Your task to perform on an android device: open chrome privacy settings Image 0: 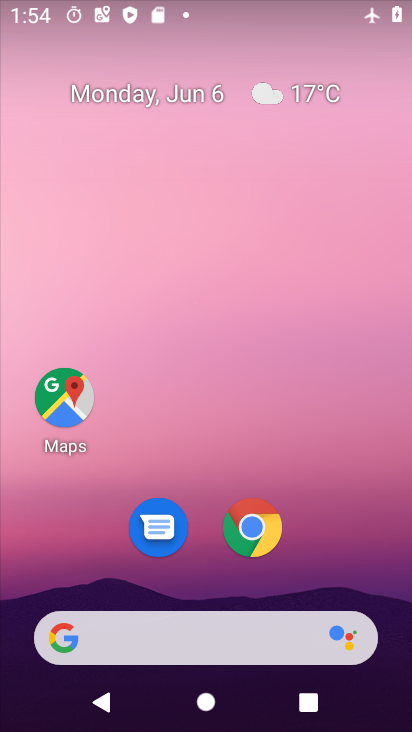
Step 0: click (258, 532)
Your task to perform on an android device: open chrome privacy settings Image 1: 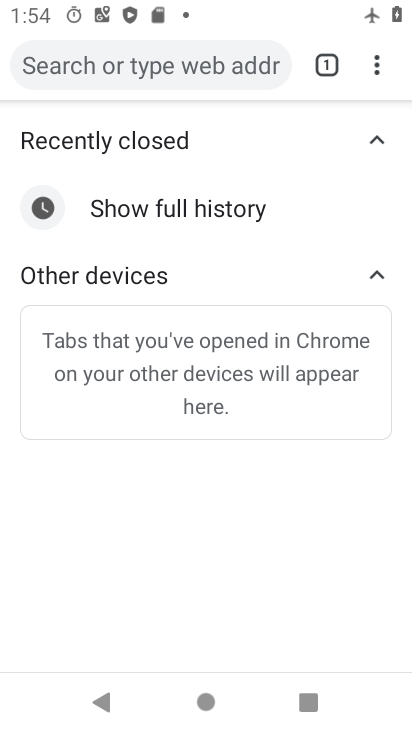
Step 1: click (377, 72)
Your task to perform on an android device: open chrome privacy settings Image 2: 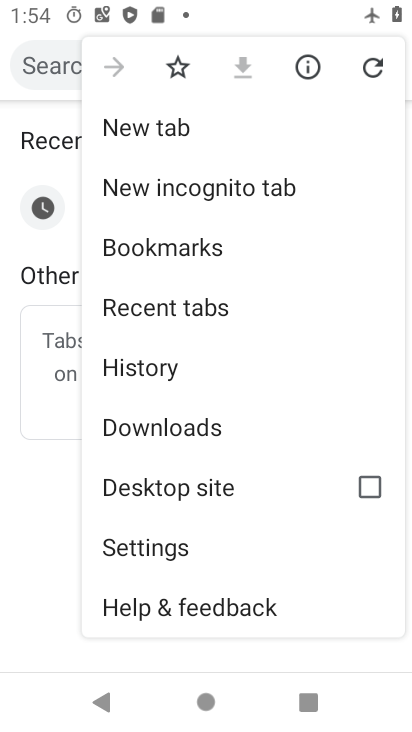
Step 2: click (153, 544)
Your task to perform on an android device: open chrome privacy settings Image 3: 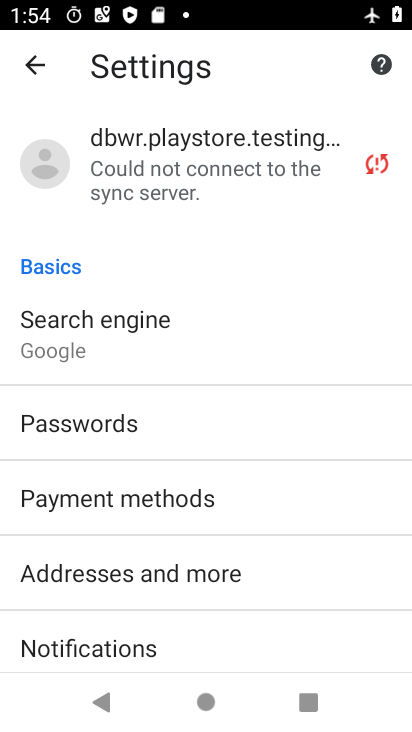
Step 3: drag from (146, 645) to (146, 342)
Your task to perform on an android device: open chrome privacy settings Image 4: 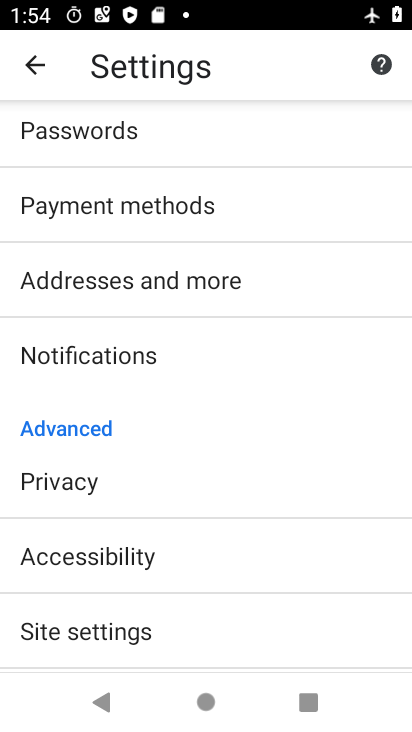
Step 4: click (77, 478)
Your task to perform on an android device: open chrome privacy settings Image 5: 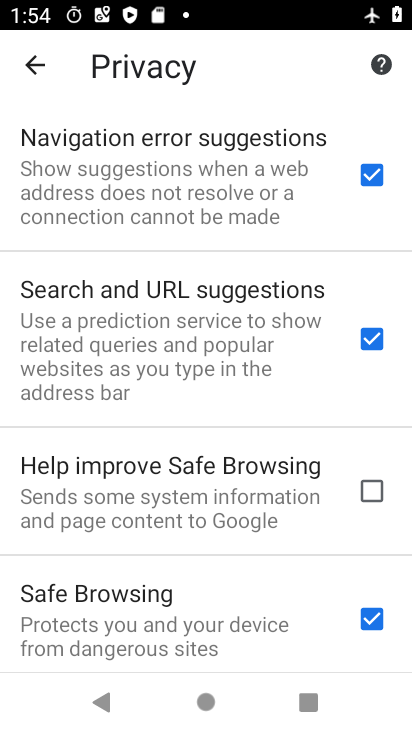
Step 5: task complete